Your task to perform on an android device: Search for sushi restaurants on Maps Image 0: 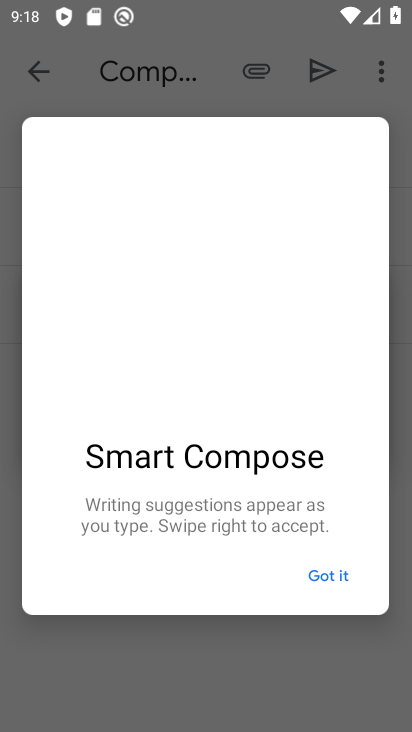
Step 0: press home button
Your task to perform on an android device: Search for sushi restaurants on Maps Image 1: 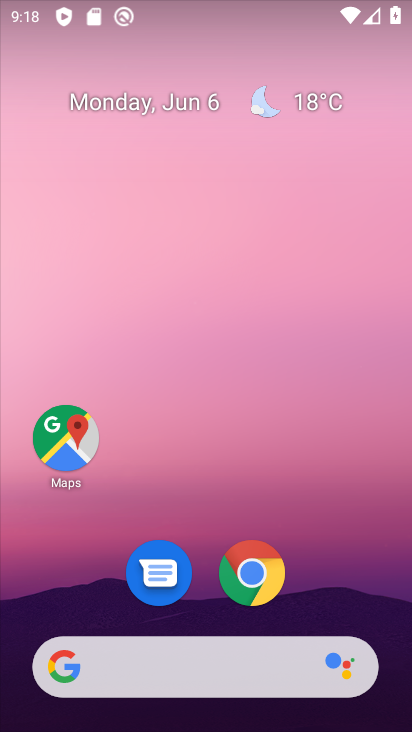
Step 1: click (57, 455)
Your task to perform on an android device: Search for sushi restaurants on Maps Image 2: 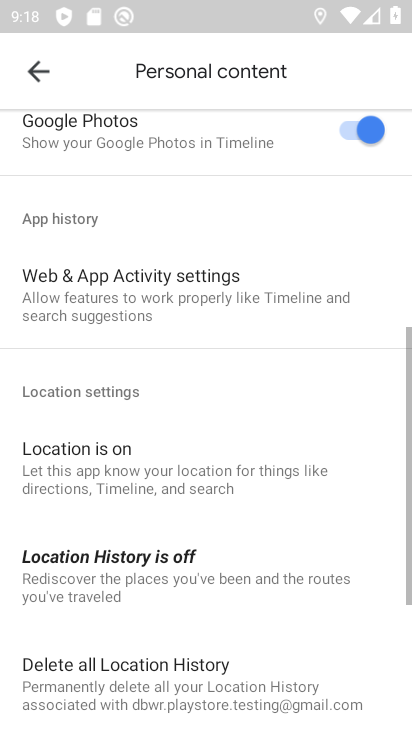
Step 2: click (40, 63)
Your task to perform on an android device: Search for sushi restaurants on Maps Image 3: 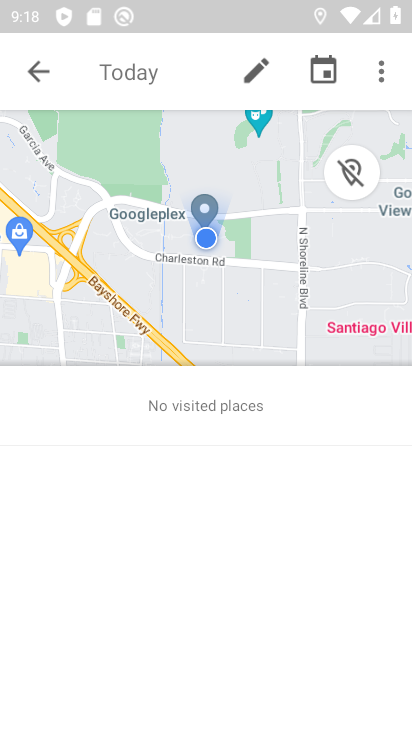
Step 3: click (40, 63)
Your task to perform on an android device: Search for sushi restaurants on Maps Image 4: 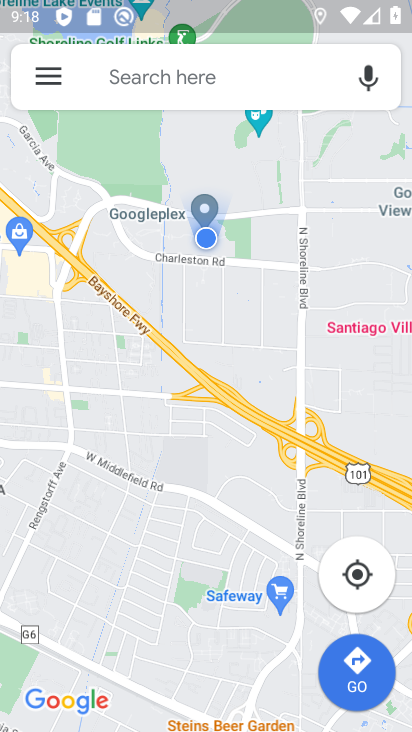
Step 4: click (168, 83)
Your task to perform on an android device: Search for sushi restaurants on Maps Image 5: 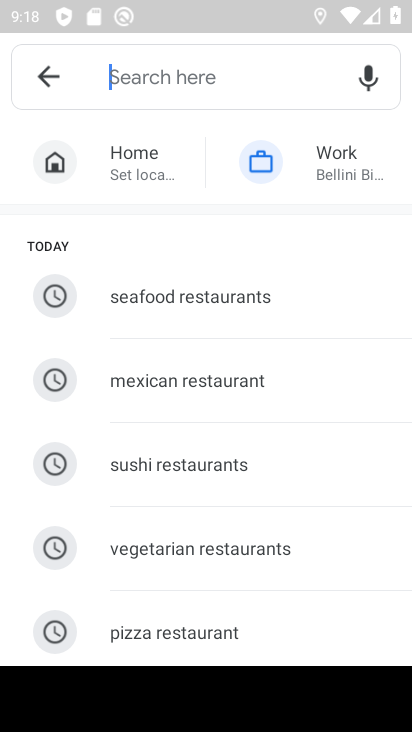
Step 5: click (208, 454)
Your task to perform on an android device: Search for sushi restaurants on Maps Image 6: 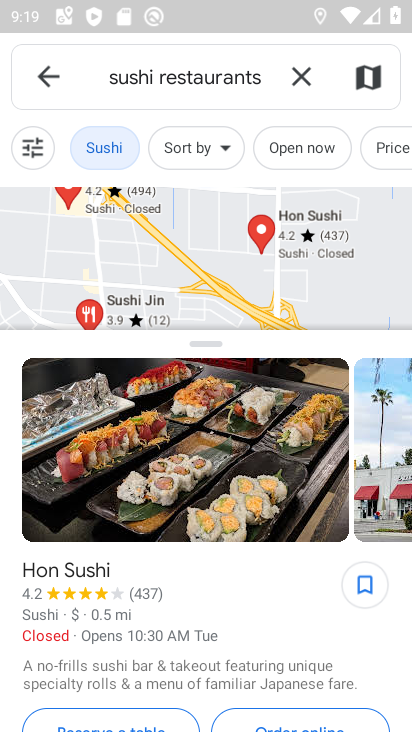
Step 6: task complete